Your task to perform on an android device: open app "Airtel Thanks" (install if not already installed) and enter user name: "acclaimed@inbox.com" and password: "dichotomize" Image 0: 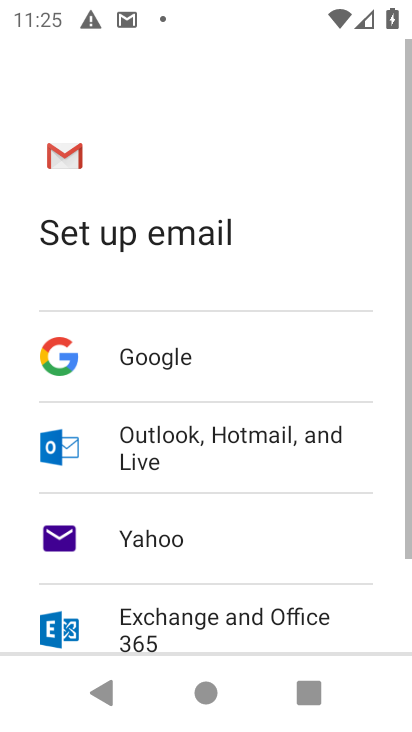
Step 0: press home button
Your task to perform on an android device: open app "Airtel Thanks" (install if not already installed) and enter user name: "acclaimed@inbox.com" and password: "dichotomize" Image 1: 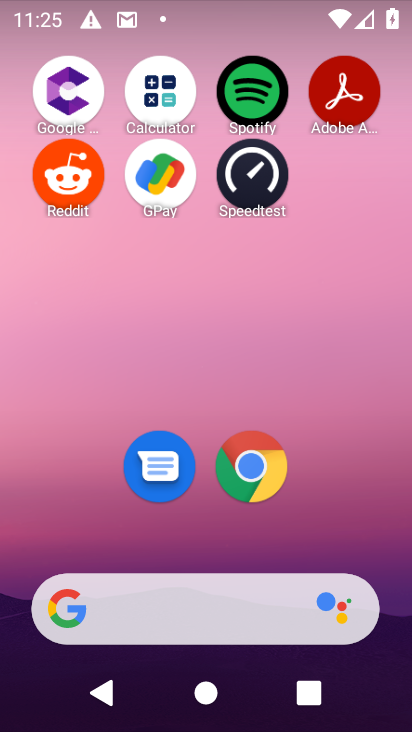
Step 1: drag from (323, 562) to (291, 4)
Your task to perform on an android device: open app "Airtel Thanks" (install if not already installed) and enter user name: "acclaimed@inbox.com" and password: "dichotomize" Image 2: 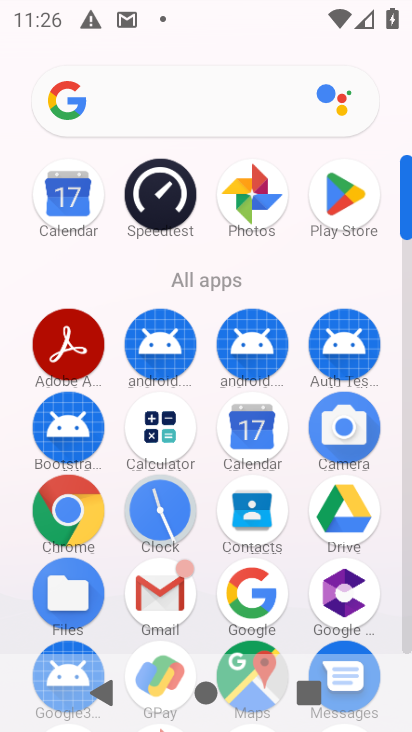
Step 2: click (335, 219)
Your task to perform on an android device: open app "Airtel Thanks" (install if not already installed) and enter user name: "acclaimed@inbox.com" and password: "dichotomize" Image 3: 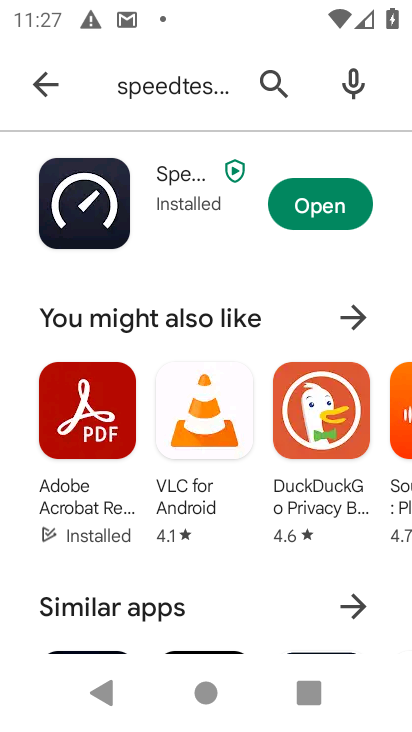
Step 3: click (30, 90)
Your task to perform on an android device: open app "Airtel Thanks" (install if not already installed) and enter user name: "acclaimed@inbox.com" and password: "dichotomize" Image 4: 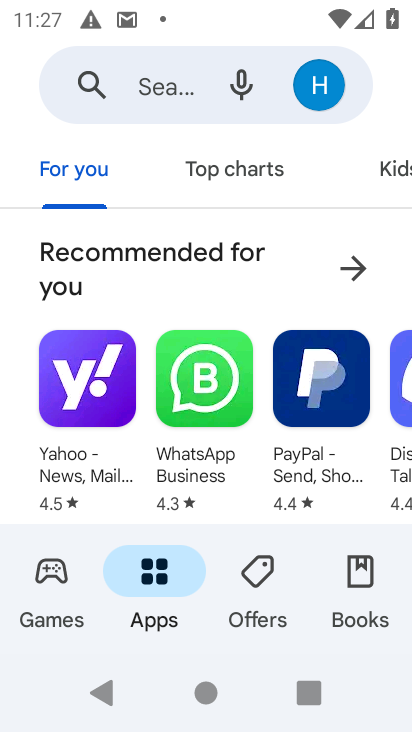
Step 4: click (152, 82)
Your task to perform on an android device: open app "Airtel Thanks" (install if not already installed) and enter user name: "acclaimed@inbox.com" and password: "dichotomize" Image 5: 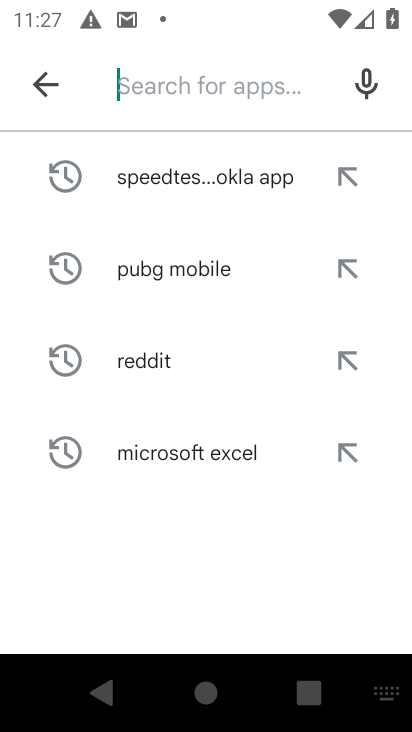
Step 5: type "Airtel Thanks"
Your task to perform on an android device: open app "Airtel Thanks" (install if not already installed) and enter user name: "acclaimed@inbox.com" and password: "dichotomize" Image 6: 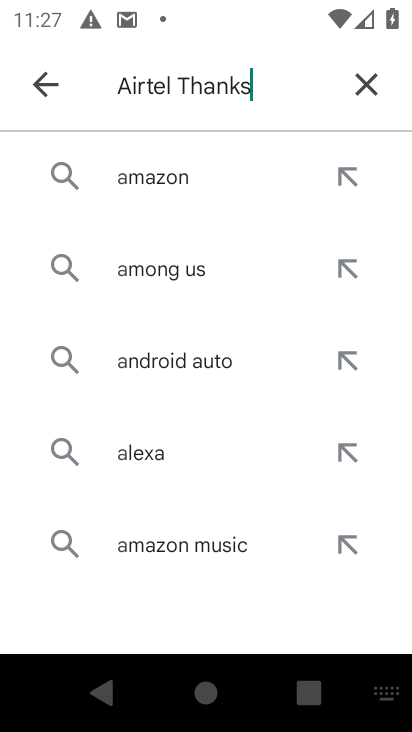
Step 6: type ""
Your task to perform on an android device: open app "Airtel Thanks" (install if not already installed) and enter user name: "acclaimed@inbox.com" and password: "dichotomize" Image 7: 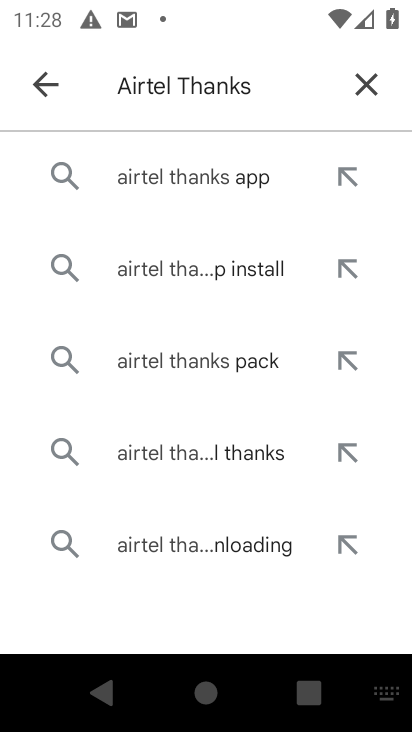
Step 7: click (221, 194)
Your task to perform on an android device: open app "Airtel Thanks" (install if not already installed) and enter user name: "acclaimed@inbox.com" and password: "dichotomize" Image 8: 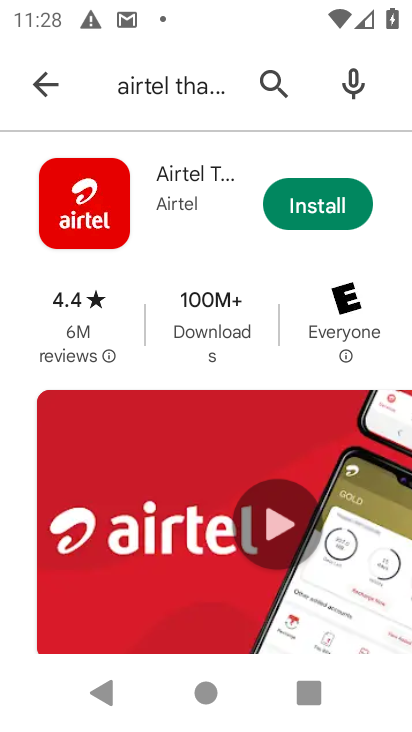
Step 8: click (292, 212)
Your task to perform on an android device: open app "Airtel Thanks" (install if not already installed) and enter user name: "acclaimed@inbox.com" and password: "dichotomize" Image 9: 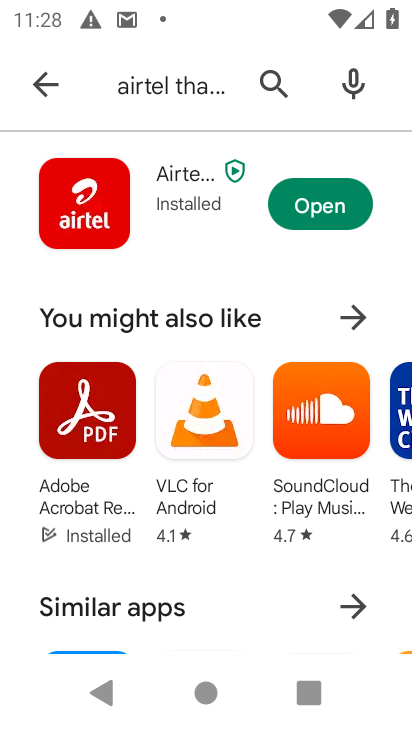
Step 9: click (349, 207)
Your task to perform on an android device: open app "Airtel Thanks" (install if not already installed) and enter user name: "acclaimed@inbox.com" and password: "dichotomize" Image 10: 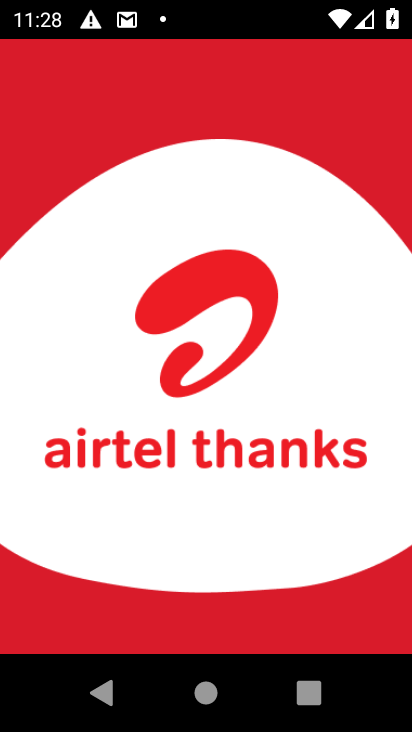
Step 10: task complete